Your task to perform on an android device: turn off picture-in-picture Image 0: 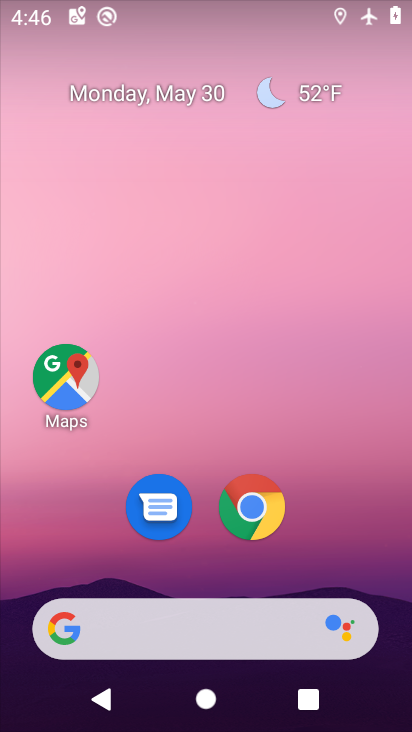
Step 0: drag from (299, 569) to (278, 14)
Your task to perform on an android device: turn off picture-in-picture Image 1: 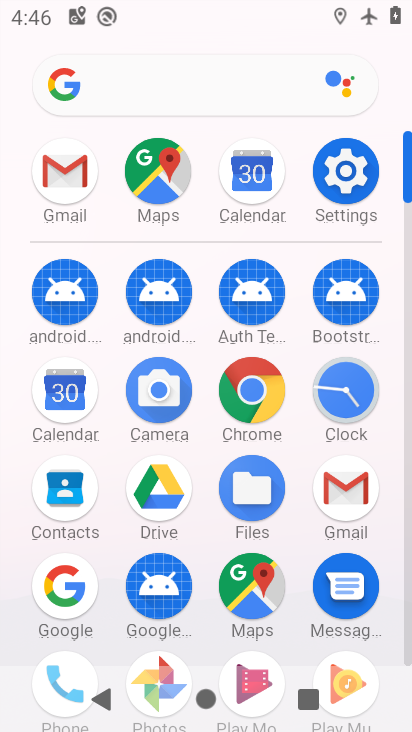
Step 1: click (254, 417)
Your task to perform on an android device: turn off picture-in-picture Image 2: 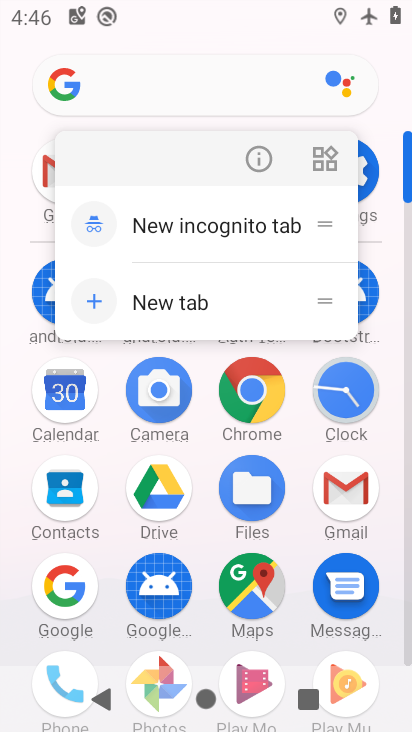
Step 2: click (248, 157)
Your task to perform on an android device: turn off picture-in-picture Image 3: 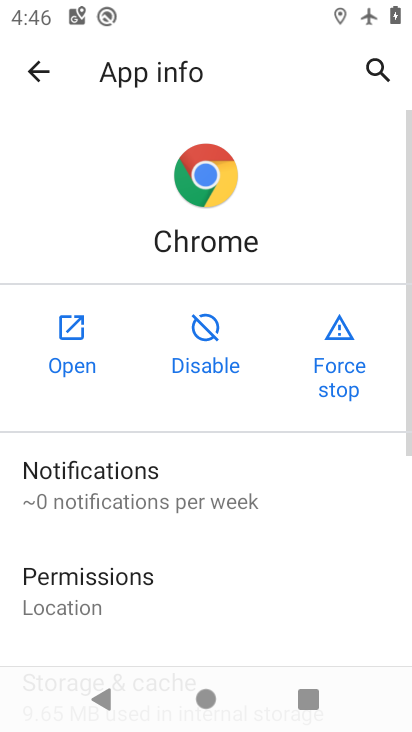
Step 3: drag from (167, 595) to (232, 130)
Your task to perform on an android device: turn off picture-in-picture Image 4: 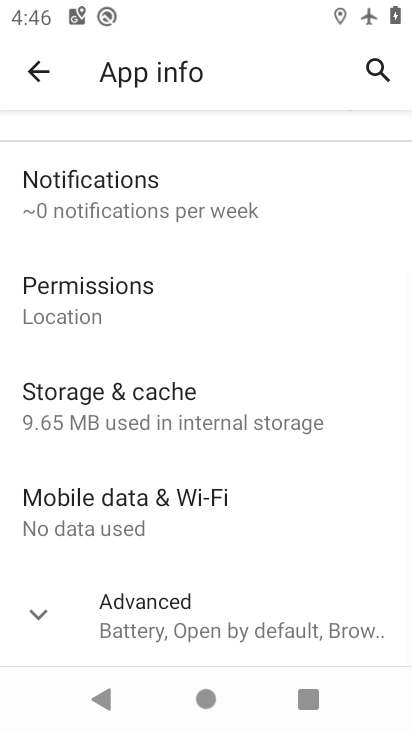
Step 4: drag from (321, 404) to (340, 151)
Your task to perform on an android device: turn off picture-in-picture Image 5: 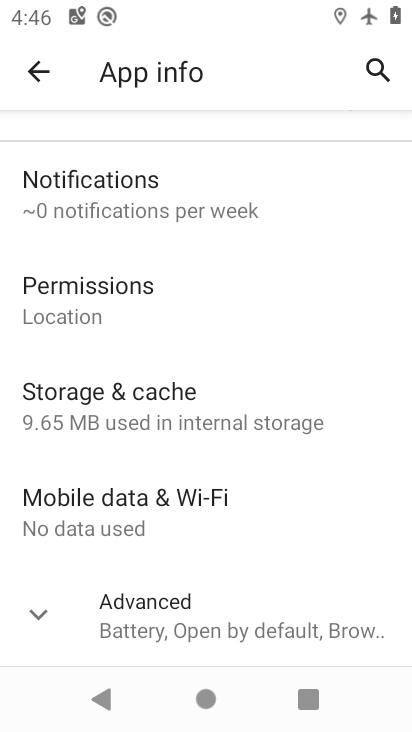
Step 5: click (293, 602)
Your task to perform on an android device: turn off picture-in-picture Image 6: 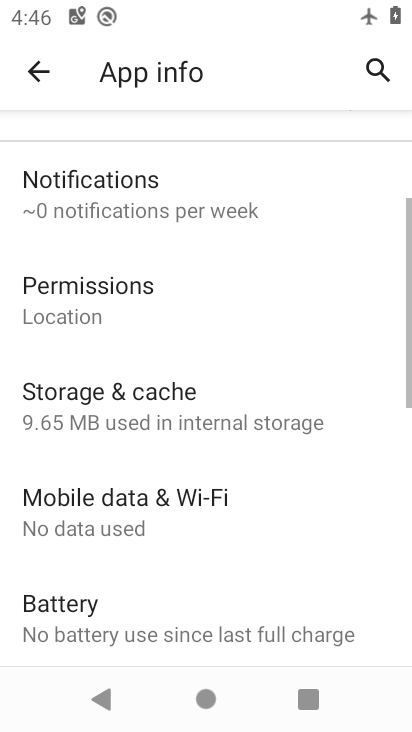
Step 6: drag from (340, 619) to (296, 1)
Your task to perform on an android device: turn off picture-in-picture Image 7: 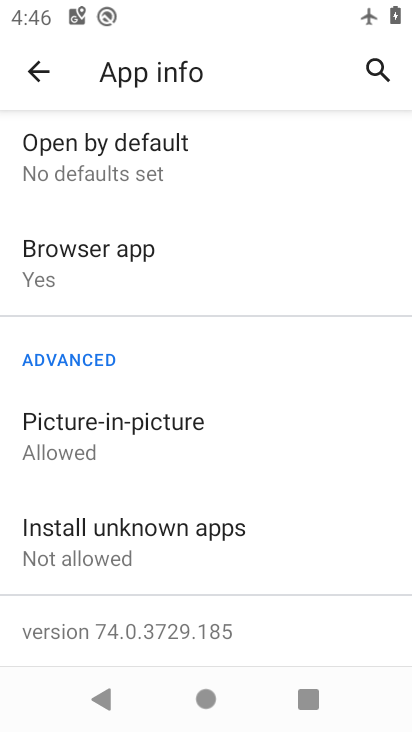
Step 7: click (208, 471)
Your task to perform on an android device: turn off picture-in-picture Image 8: 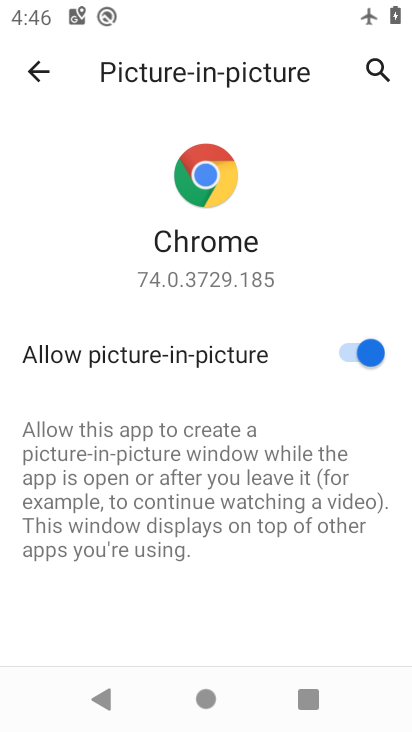
Step 8: click (243, 317)
Your task to perform on an android device: turn off picture-in-picture Image 9: 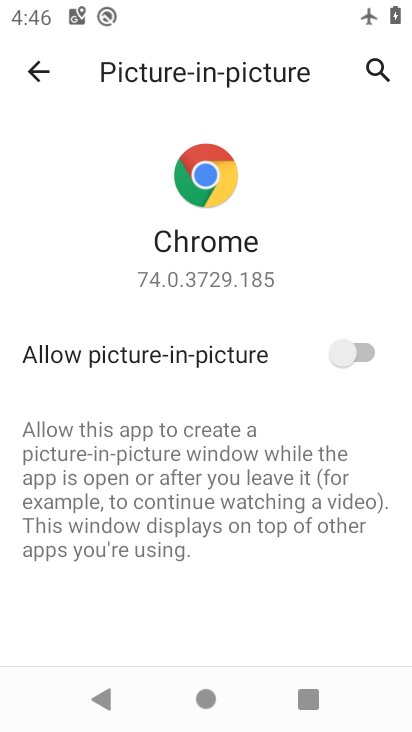
Step 9: task complete